Your task to perform on an android device: Open network settings Image 0: 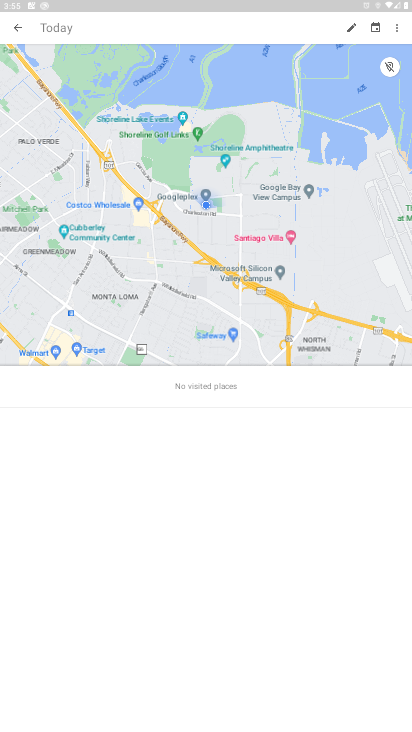
Step 0: press home button
Your task to perform on an android device: Open network settings Image 1: 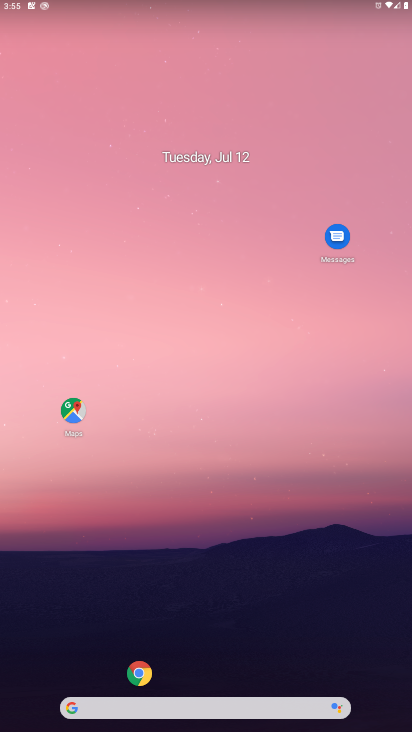
Step 1: drag from (44, 662) to (282, 293)
Your task to perform on an android device: Open network settings Image 2: 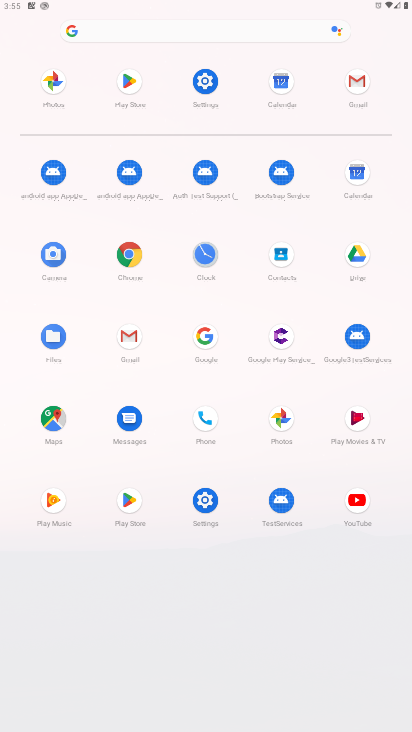
Step 2: click (194, 510)
Your task to perform on an android device: Open network settings Image 3: 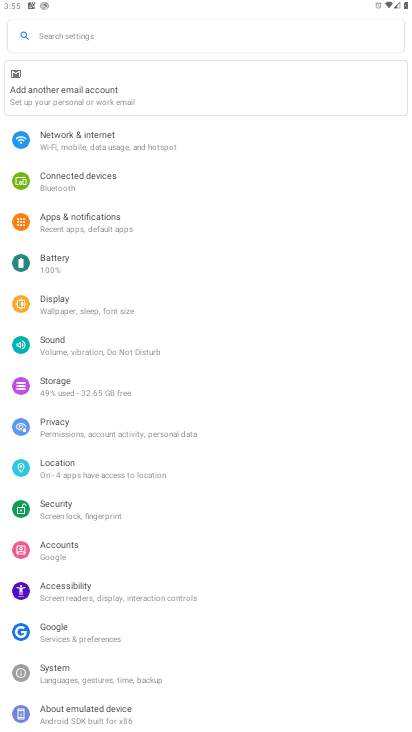
Step 3: click (79, 142)
Your task to perform on an android device: Open network settings Image 4: 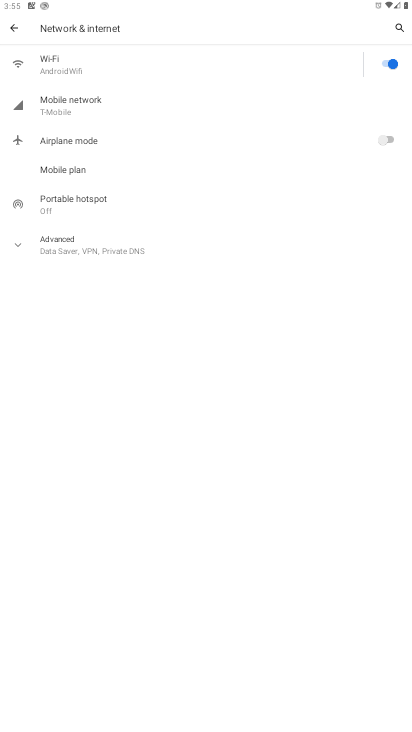
Step 4: task complete